Your task to perform on an android device: Show me recent news Image 0: 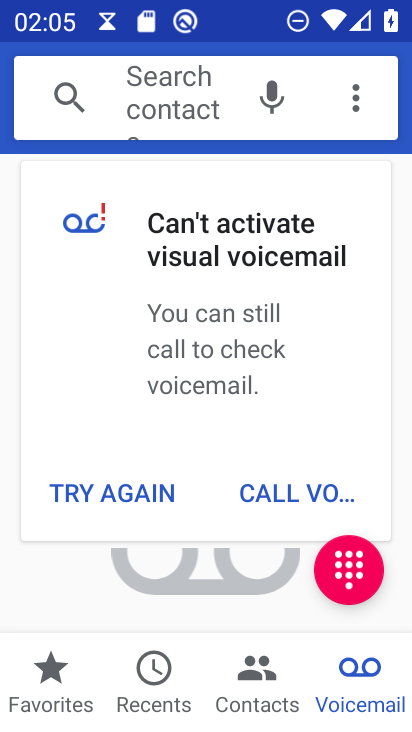
Step 0: press home button
Your task to perform on an android device: Show me recent news Image 1: 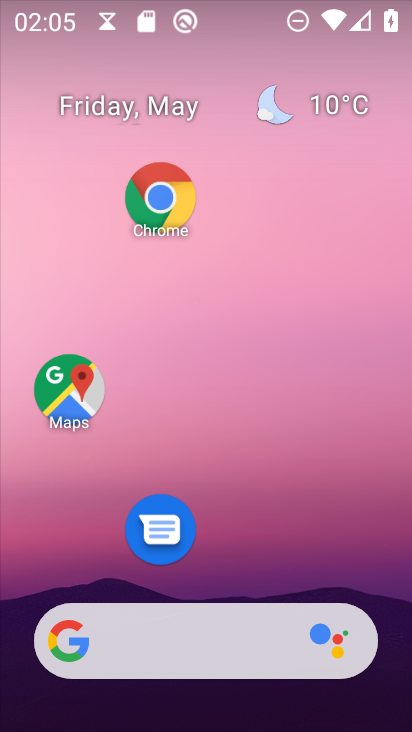
Step 1: drag from (233, 615) to (276, 242)
Your task to perform on an android device: Show me recent news Image 2: 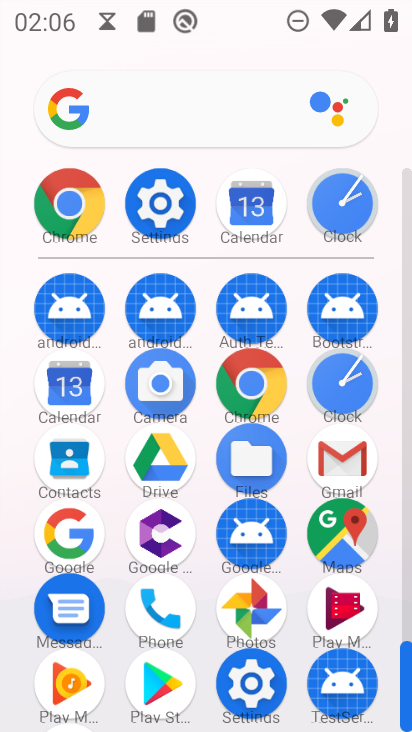
Step 2: click (42, 207)
Your task to perform on an android device: Show me recent news Image 3: 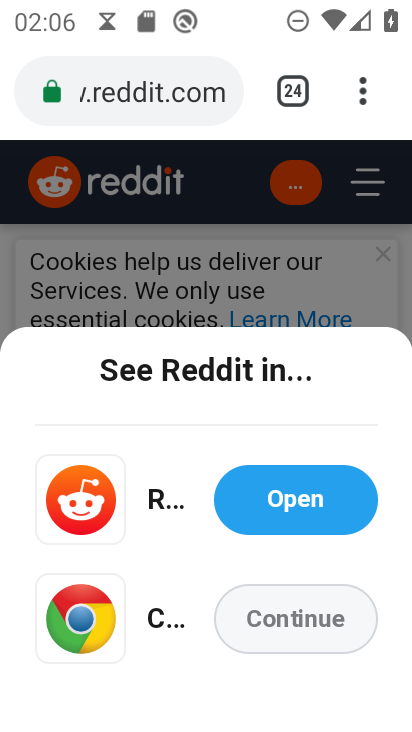
Step 3: click (350, 98)
Your task to perform on an android device: Show me recent news Image 4: 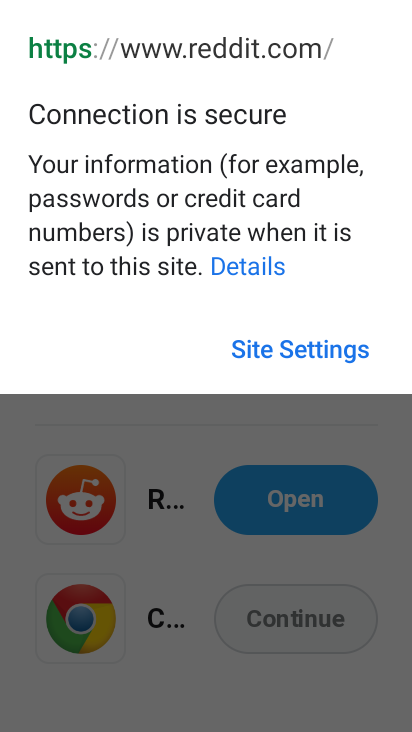
Step 4: press back button
Your task to perform on an android device: Show me recent news Image 5: 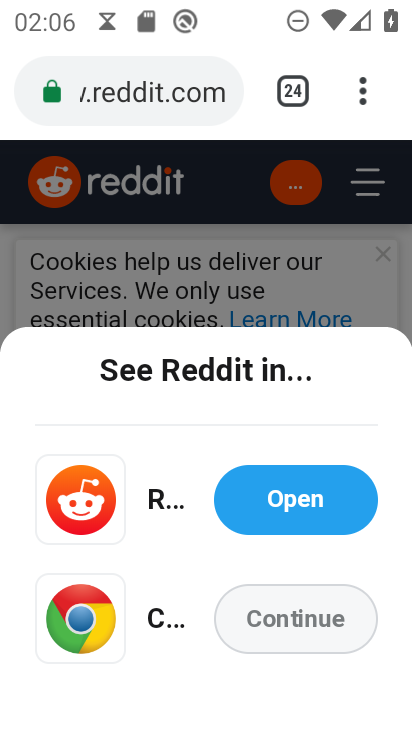
Step 5: click (376, 85)
Your task to perform on an android device: Show me recent news Image 6: 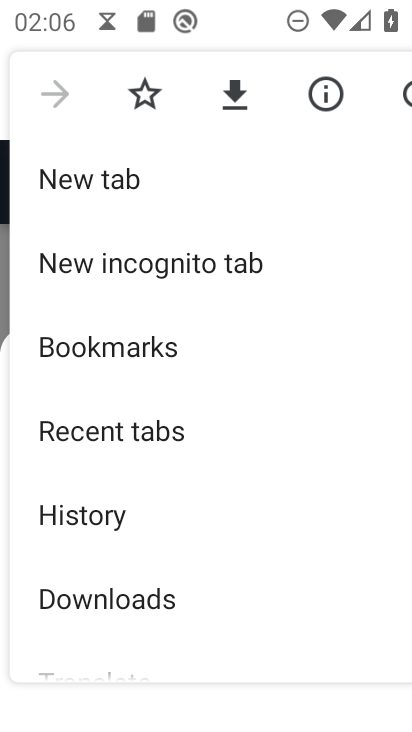
Step 6: click (105, 172)
Your task to perform on an android device: Show me recent news Image 7: 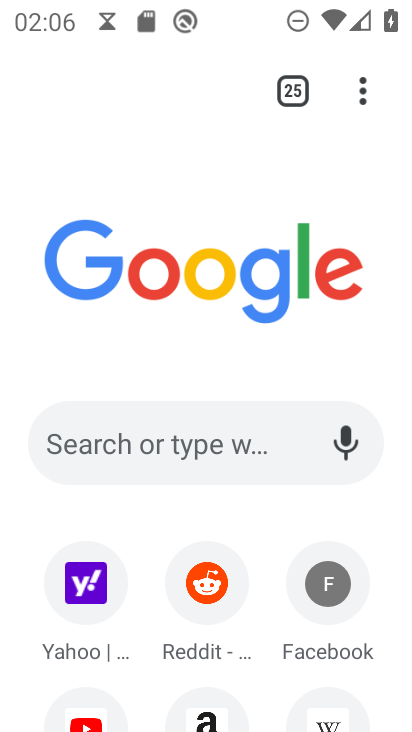
Step 7: click (172, 436)
Your task to perform on an android device: Show me recent news Image 8: 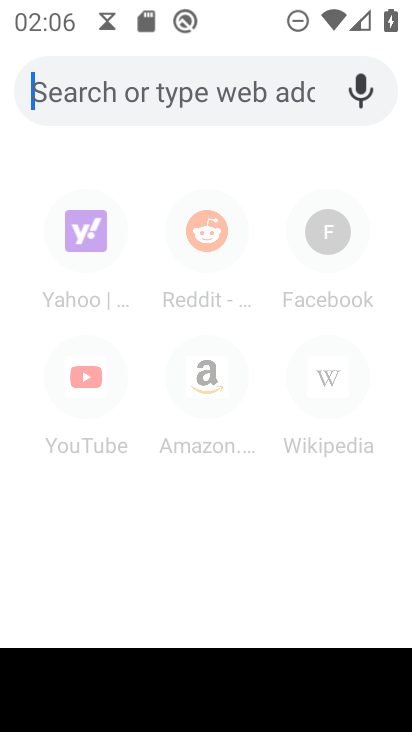
Step 8: type "Show me recent news"
Your task to perform on an android device: Show me recent news Image 9: 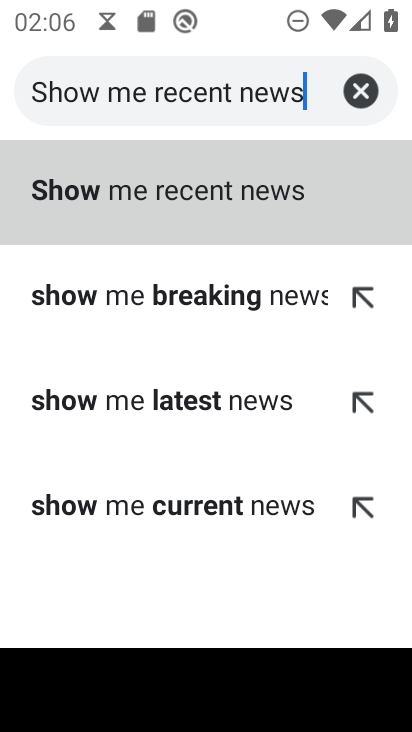
Step 9: click (274, 194)
Your task to perform on an android device: Show me recent news Image 10: 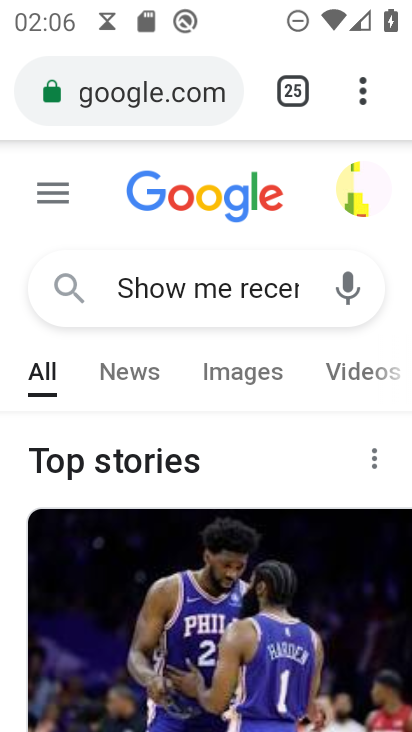
Step 10: task complete